Your task to perform on an android device: change notification settings in the gmail app Image 0: 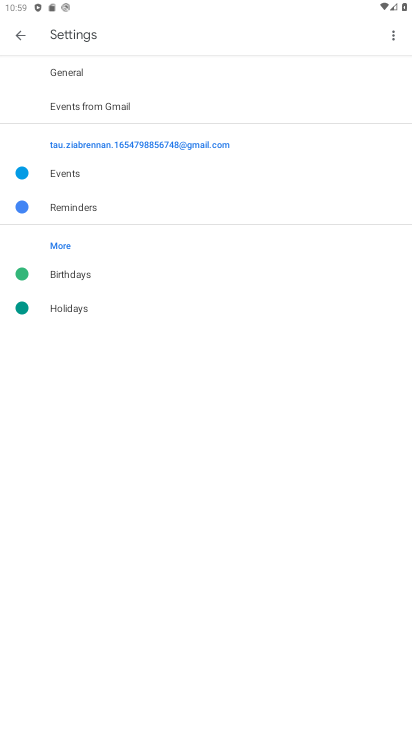
Step 0: press home button
Your task to perform on an android device: change notification settings in the gmail app Image 1: 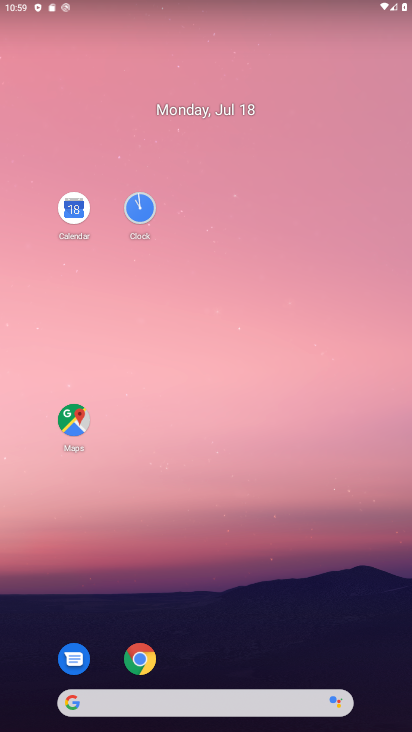
Step 1: drag from (249, 458) to (223, 177)
Your task to perform on an android device: change notification settings in the gmail app Image 2: 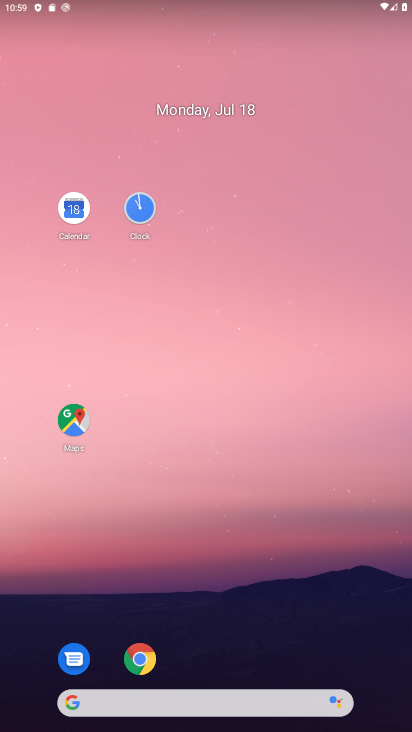
Step 2: drag from (286, 679) to (259, 247)
Your task to perform on an android device: change notification settings in the gmail app Image 3: 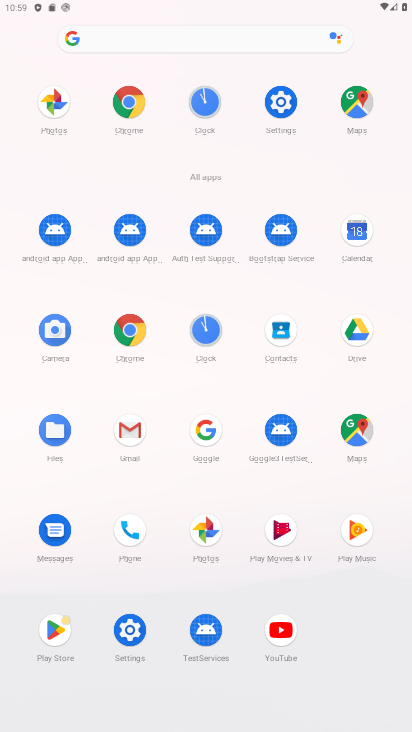
Step 3: drag from (133, 434) to (215, 238)
Your task to perform on an android device: change notification settings in the gmail app Image 4: 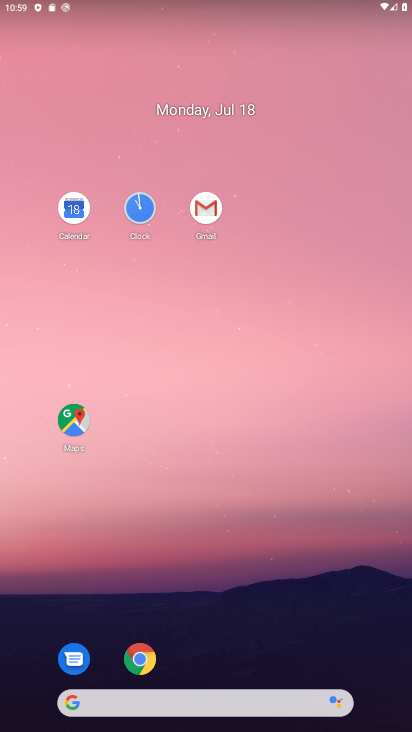
Step 4: click (204, 210)
Your task to perform on an android device: change notification settings in the gmail app Image 5: 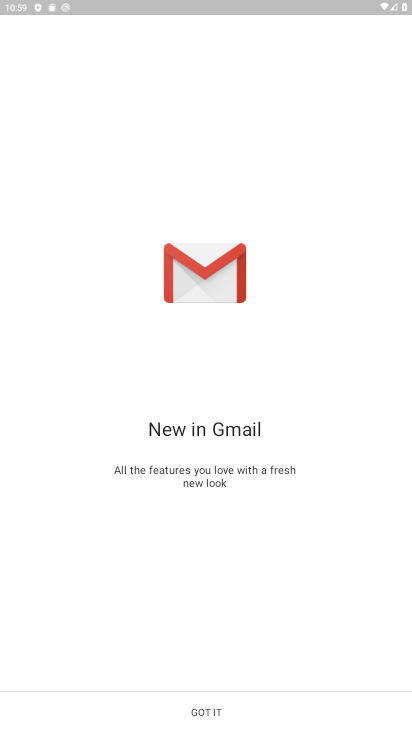
Step 5: click (214, 701)
Your task to perform on an android device: change notification settings in the gmail app Image 6: 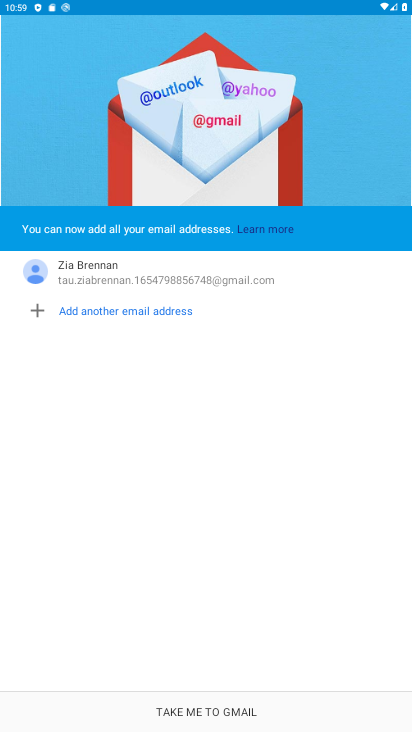
Step 6: click (214, 701)
Your task to perform on an android device: change notification settings in the gmail app Image 7: 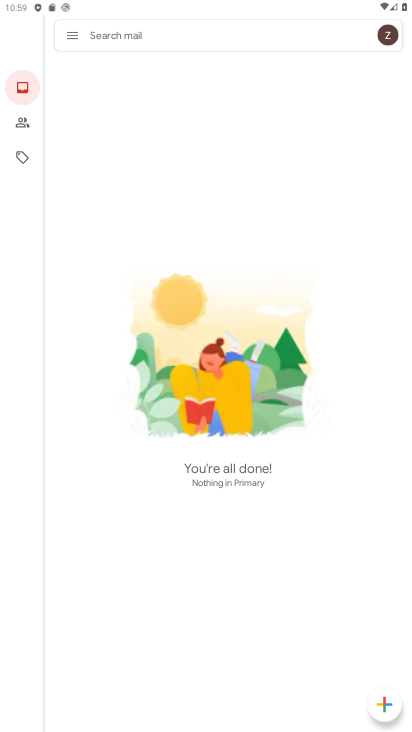
Step 7: click (78, 36)
Your task to perform on an android device: change notification settings in the gmail app Image 8: 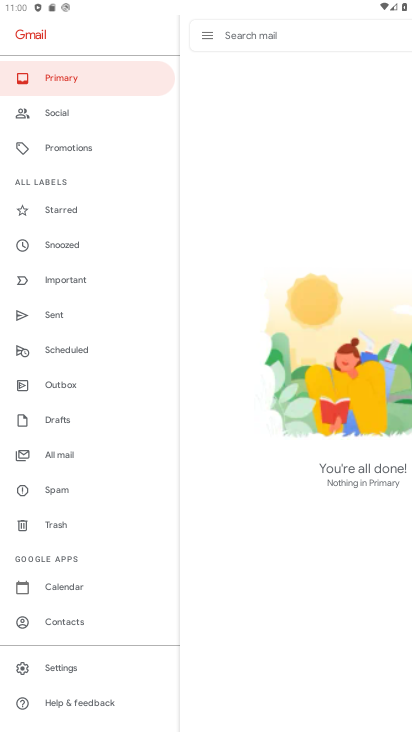
Step 8: click (92, 652)
Your task to perform on an android device: change notification settings in the gmail app Image 9: 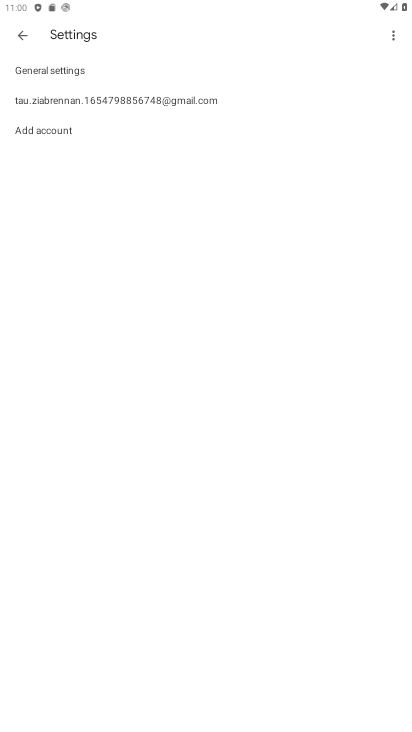
Step 9: click (206, 104)
Your task to perform on an android device: change notification settings in the gmail app Image 10: 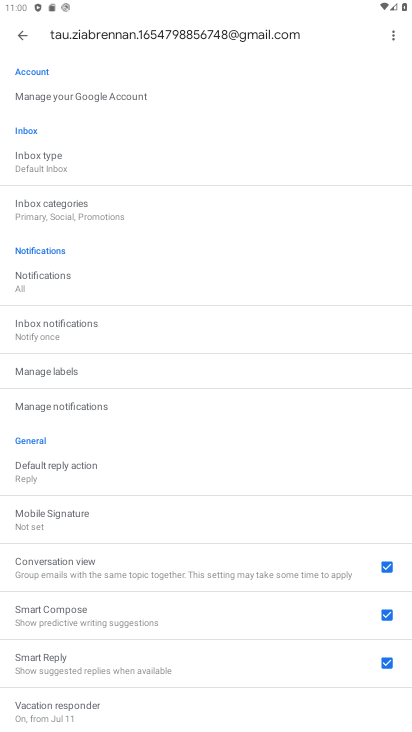
Step 10: click (133, 291)
Your task to perform on an android device: change notification settings in the gmail app Image 11: 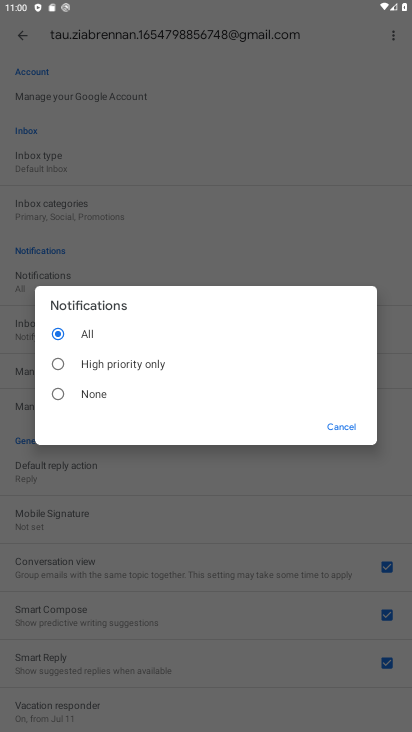
Step 11: click (110, 369)
Your task to perform on an android device: change notification settings in the gmail app Image 12: 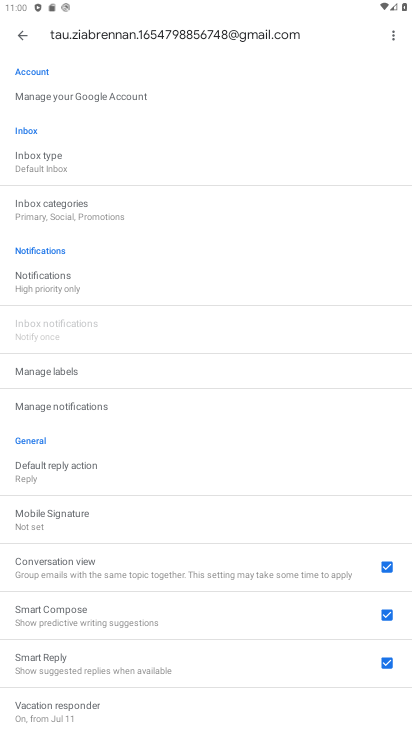
Step 12: task complete